Your task to perform on an android device: Open calendar and show me the fourth week of next month Image 0: 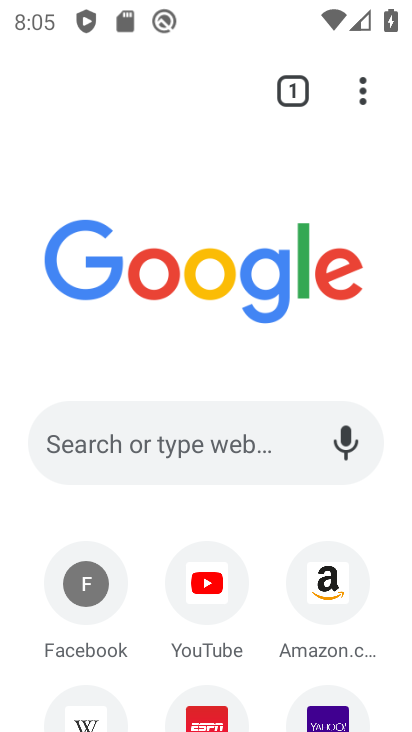
Step 0: press home button
Your task to perform on an android device: Open calendar and show me the fourth week of next month Image 1: 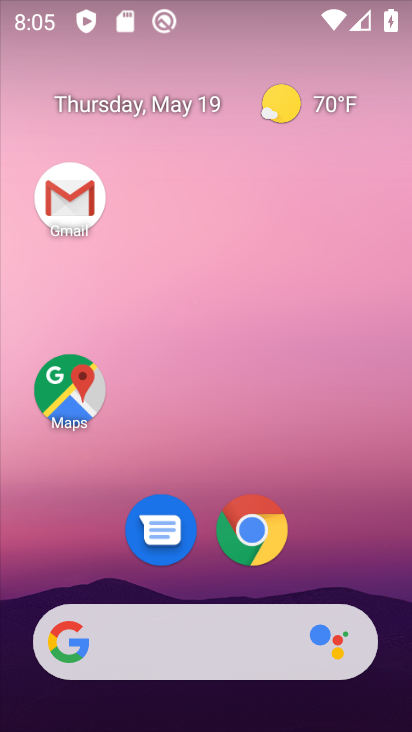
Step 1: drag from (348, 521) to (345, 36)
Your task to perform on an android device: Open calendar and show me the fourth week of next month Image 2: 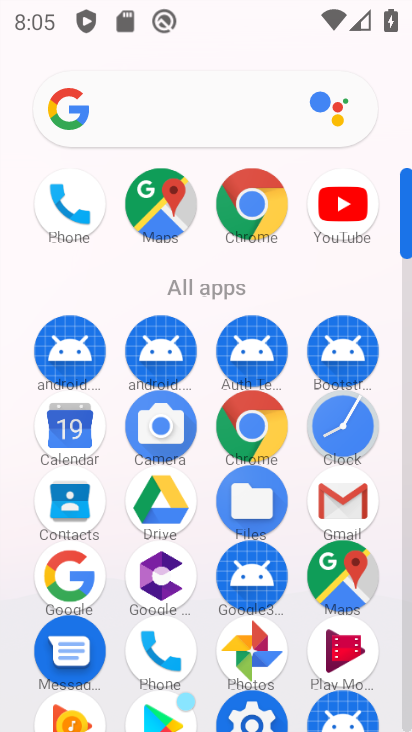
Step 2: drag from (74, 434) to (191, 212)
Your task to perform on an android device: Open calendar and show me the fourth week of next month Image 3: 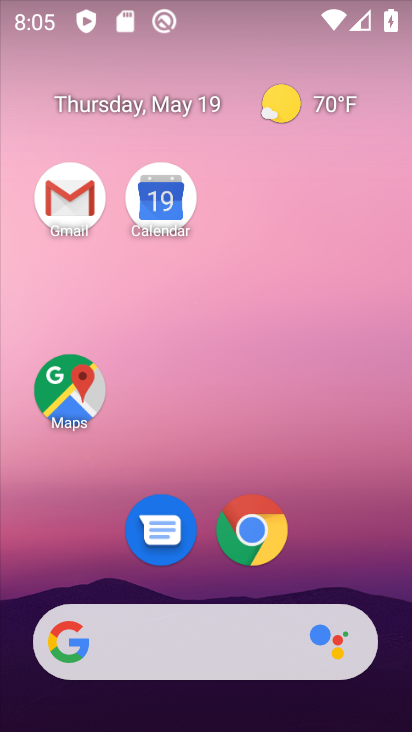
Step 3: click (162, 184)
Your task to perform on an android device: Open calendar and show me the fourth week of next month Image 4: 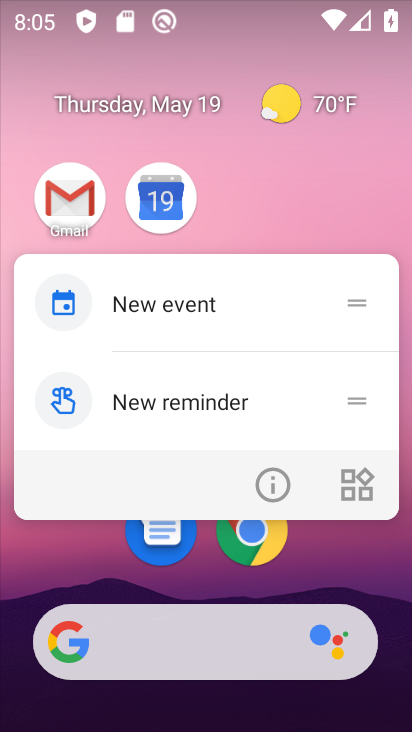
Step 4: click (162, 184)
Your task to perform on an android device: Open calendar and show me the fourth week of next month Image 5: 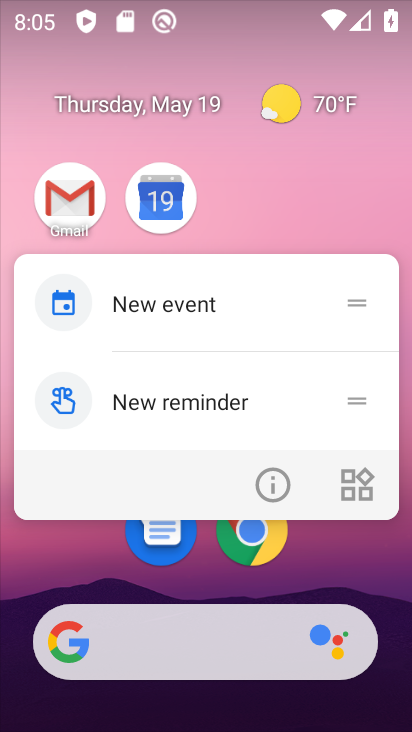
Step 5: click (162, 184)
Your task to perform on an android device: Open calendar and show me the fourth week of next month Image 6: 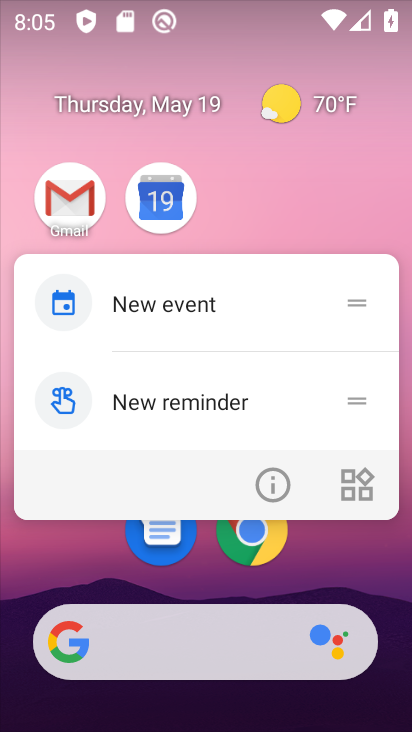
Step 6: click (162, 184)
Your task to perform on an android device: Open calendar and show me the fourth week of next month Image 7: 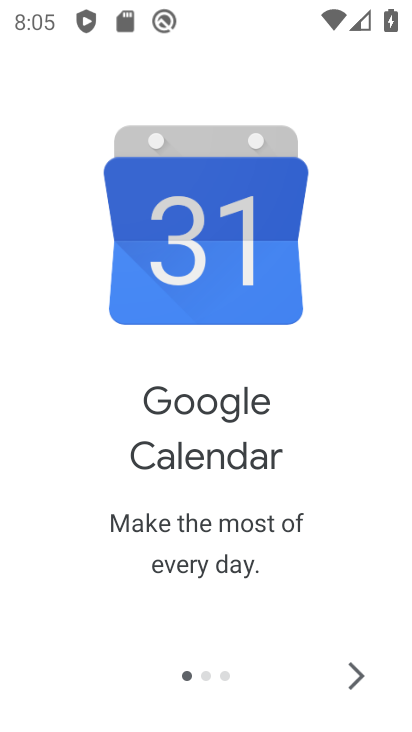
Step 7: click (361, 674)
Your task to perform on an android device: Open calendar and show me the fourth week of next month Image 8: 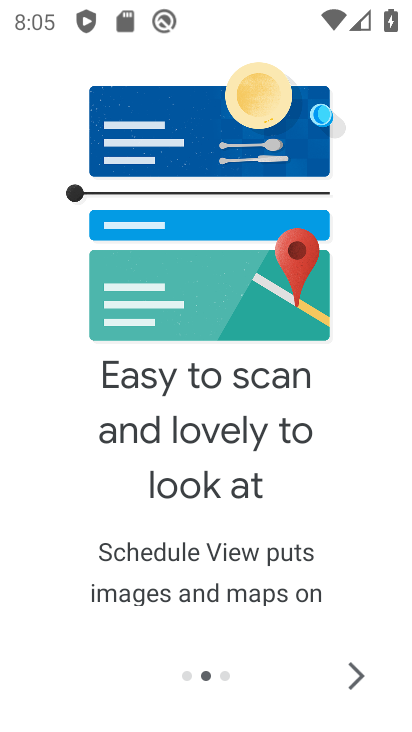
Step 8: click (361, 674)
Your task to perform on an android device: Open calendar and show me the fourth week of next month Image 9: 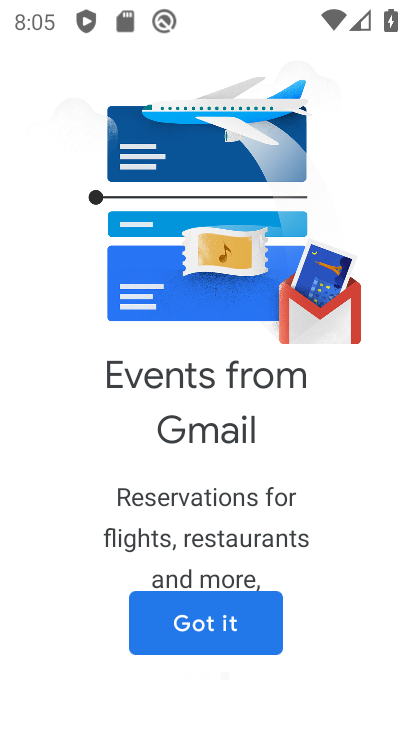
Step 9: click (361, 674)
Your task to perform on an android device: Open calendar and show me the fourth week of next month Image 10: 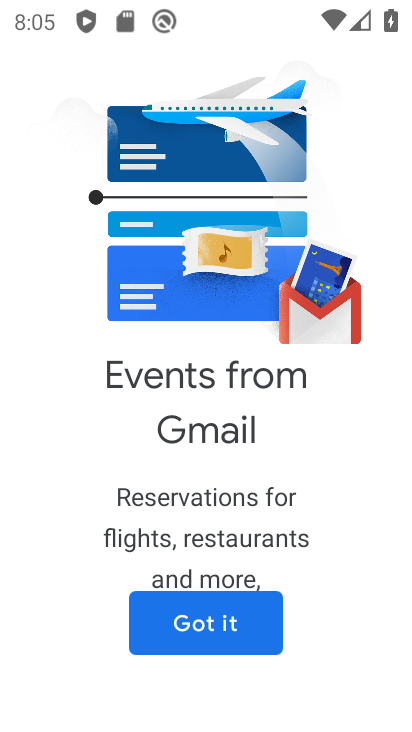
Step 10: click (208, 632)
Your task to perform on an android device: Open calendar and show me the fourth week of next month Image 11: 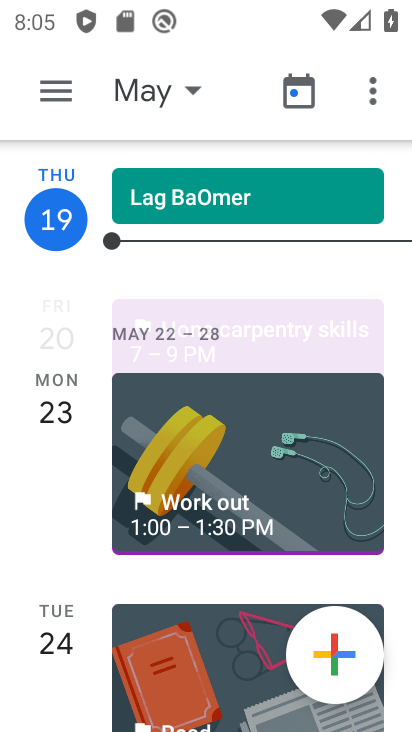
Step 11: click (170, 100)
Your task to perform on an android device: Open calendar and show me the fourth week of next month Image 12: 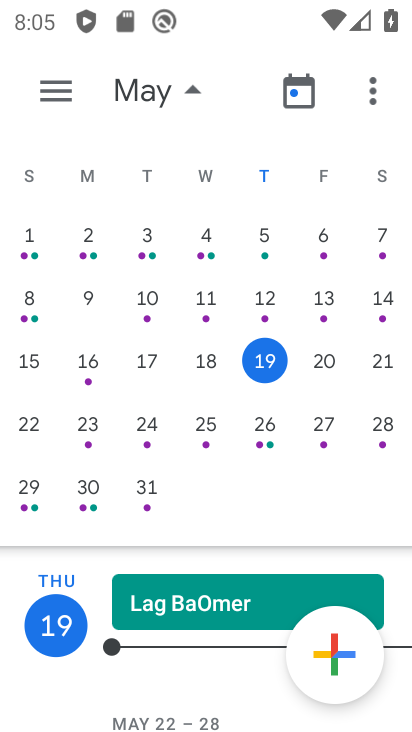
Step 12: drag from (373, 325) to (3, 160)
Your task to perform on an android device: Open calendar and show me the fourth week of next month Image 13: 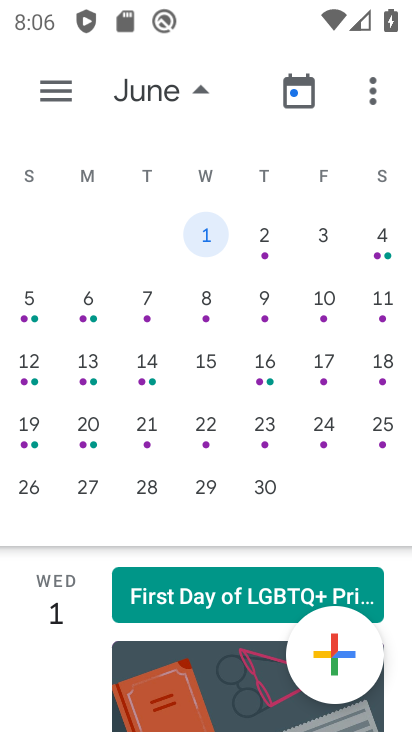
Step 13: click (59, 86)
Your task to perform on an android device: Open calendar and show me the fourth week of next month Image 14: 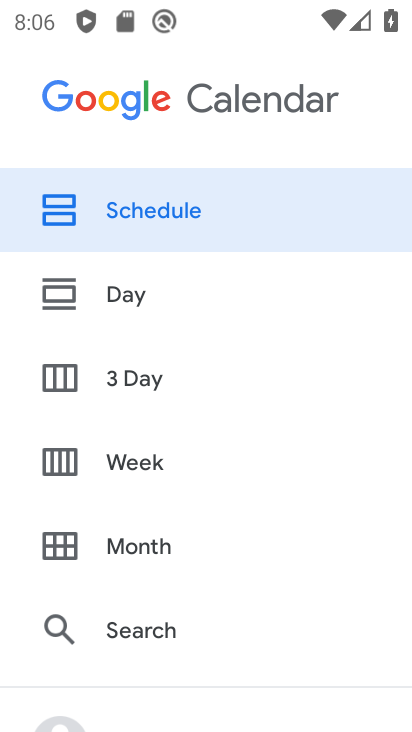
Step 14: click (167, 484)
Your task to perform on an android device: Open calendar and show me the fourth week of next month Image 15: 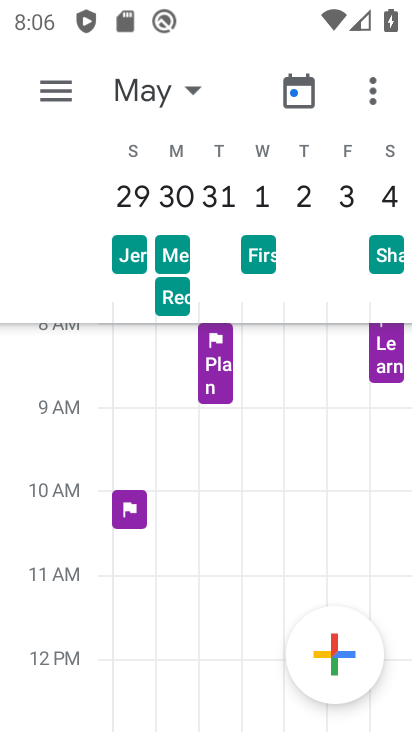
Step 15: task complete